Your task to perform on an android device: Open maps Image 0: 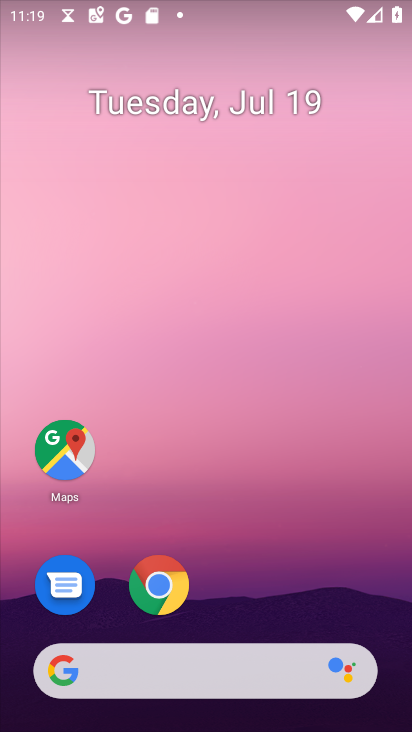
Step 0: press home button
Your task to perform on an android device: Open maps Image 1: 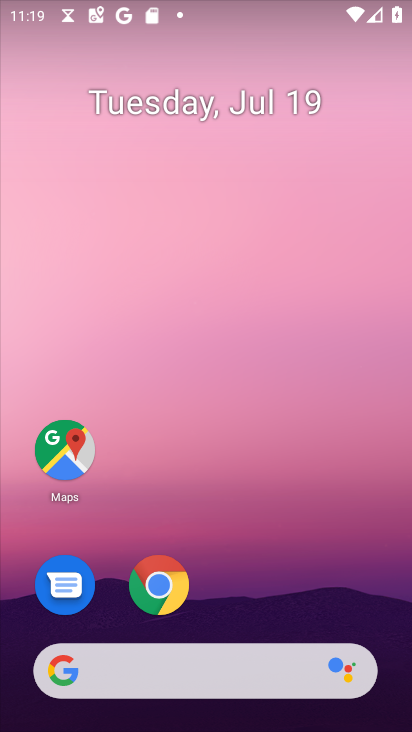
Step 1: click (66, 454)
Your task to perform on an android device: Open maps Image 2: 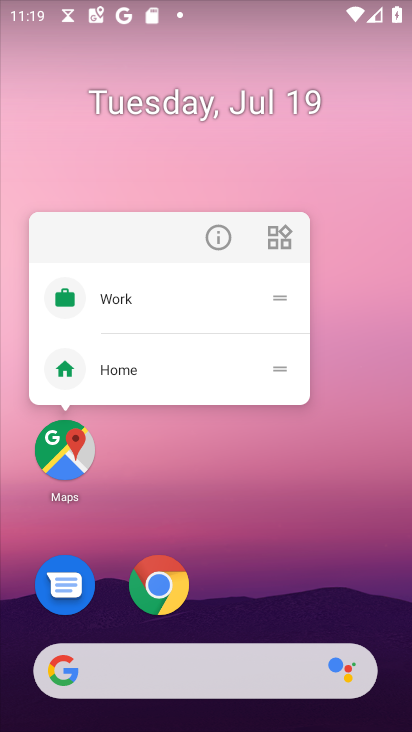
Step 2: click (62, 451)
Your task to perform on an android device: Open maps Image 3: 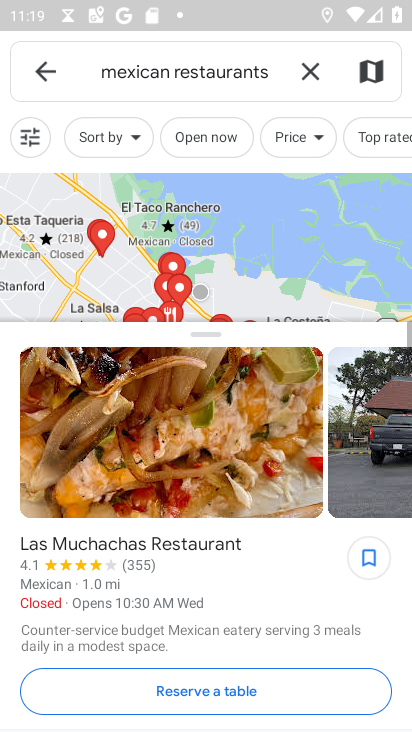
Step 3: click (55, 68)
Your task to perform on an android device: Open maps Image 4: 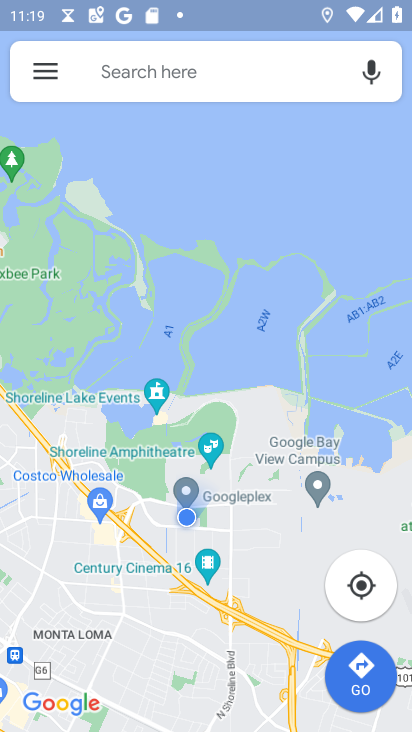
Step 4: task complete